Your task to perform on an android device: Open battery settings Image 0: 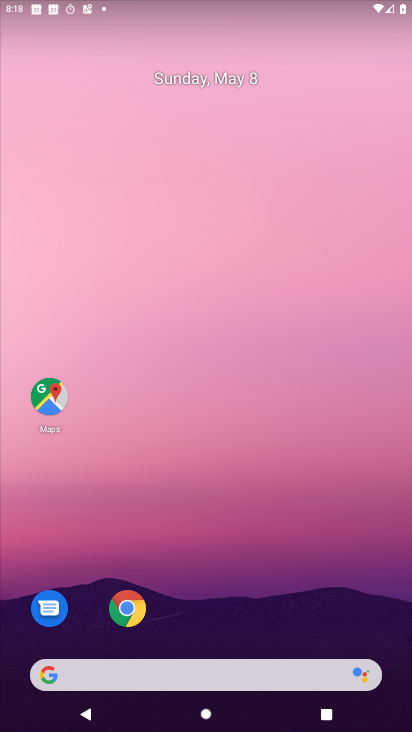
Step 0: drag from (200, 580) to (229, 239)
Your task to perform on an android device: Open battery settings Image 1: 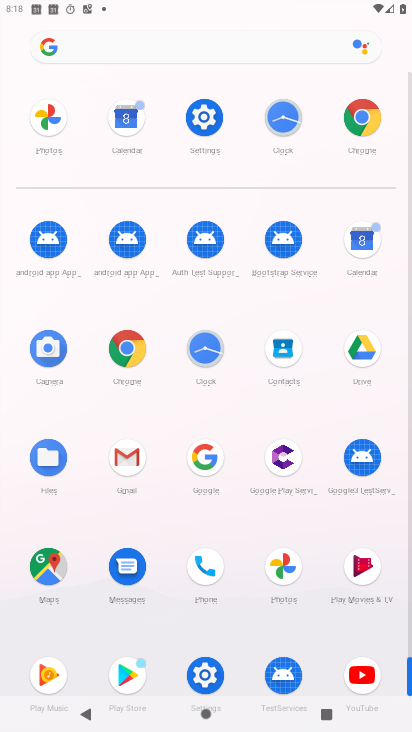
Step 1: click (203, 113)
Your task to perform on an android device: Open battery settings Image 2: 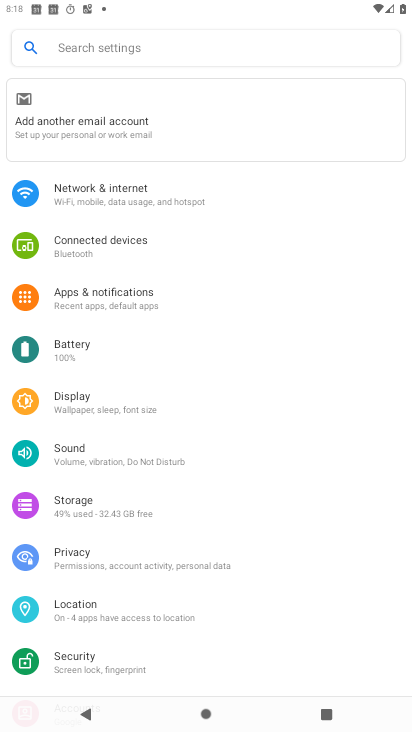
Step 2: click (86, 353)
Your task to perform on an android device: Open battery settings Image 3: 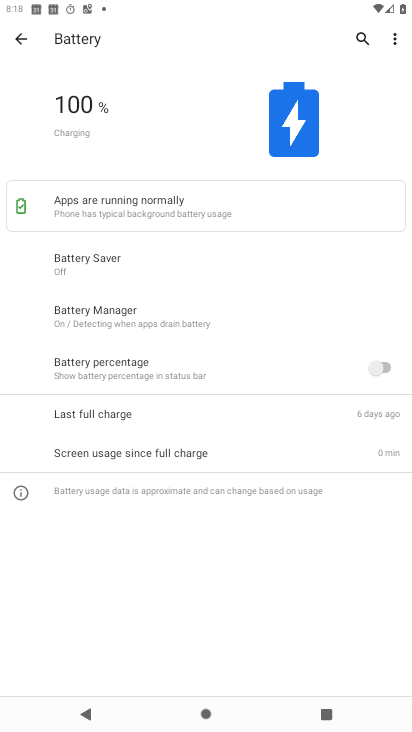
Step 3: task complete